Your task to perform on an android device: set the timer Image 0: 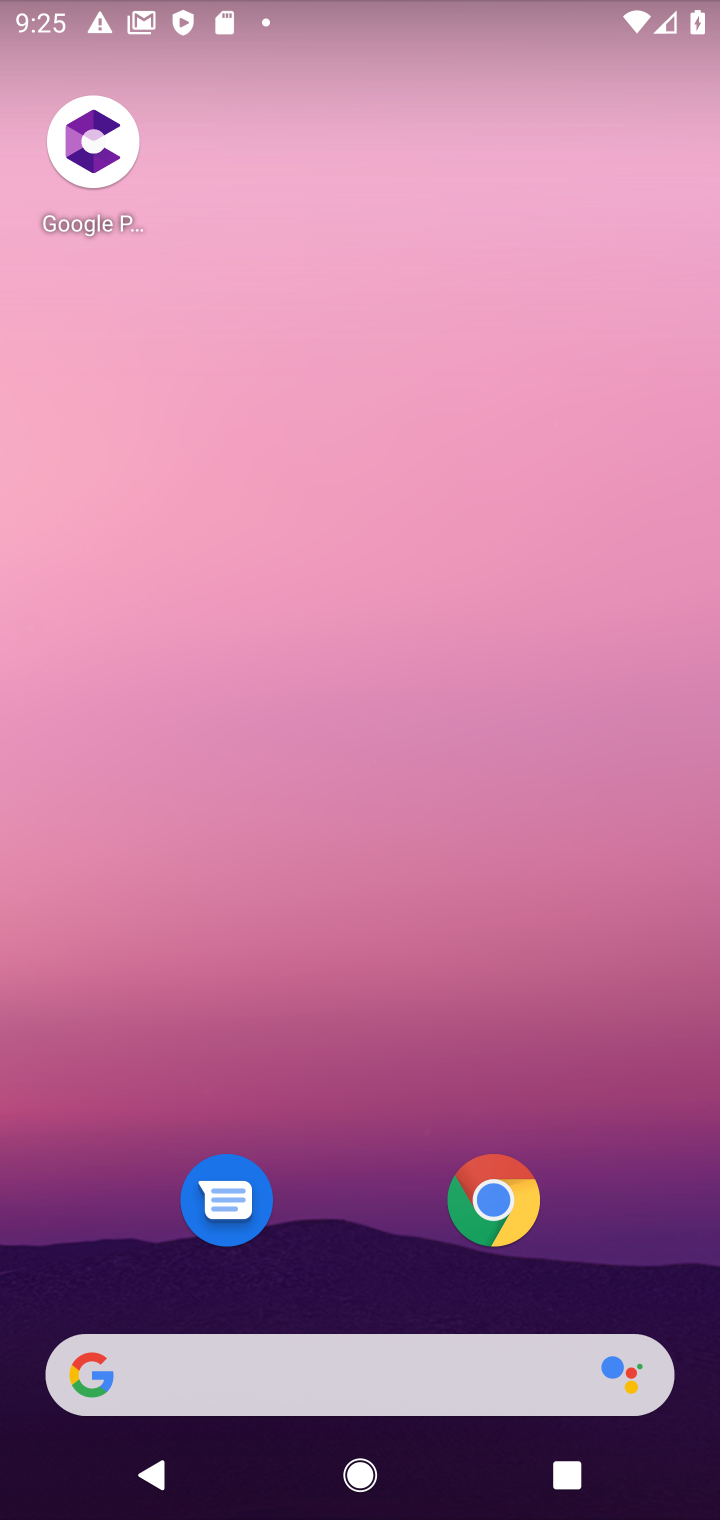
Step 0: drag from (345, 981) to (438, 133)
Your task to perform on an android device: set the timer Image 1: 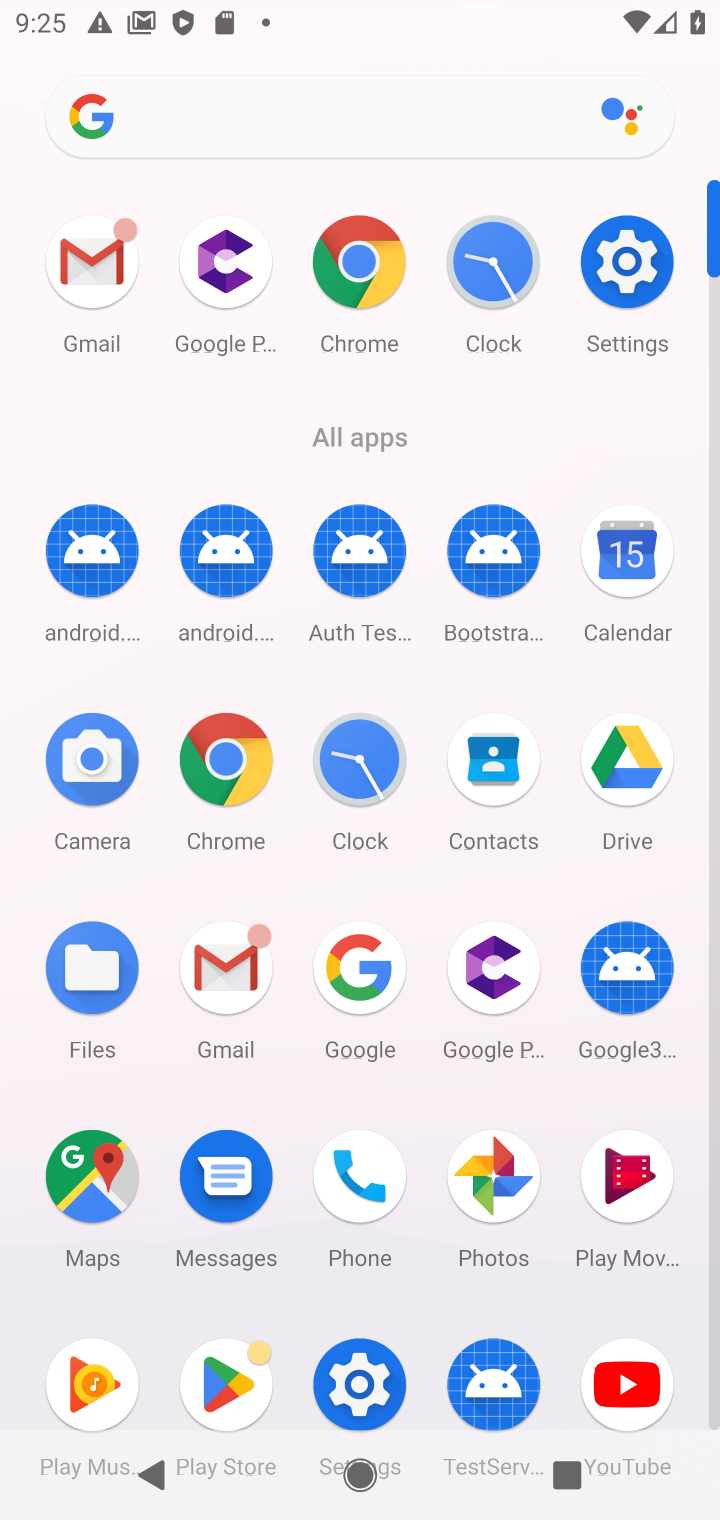
Step 1: click (504, 288)
Your task to perform on an android device: set the timer Image 2: 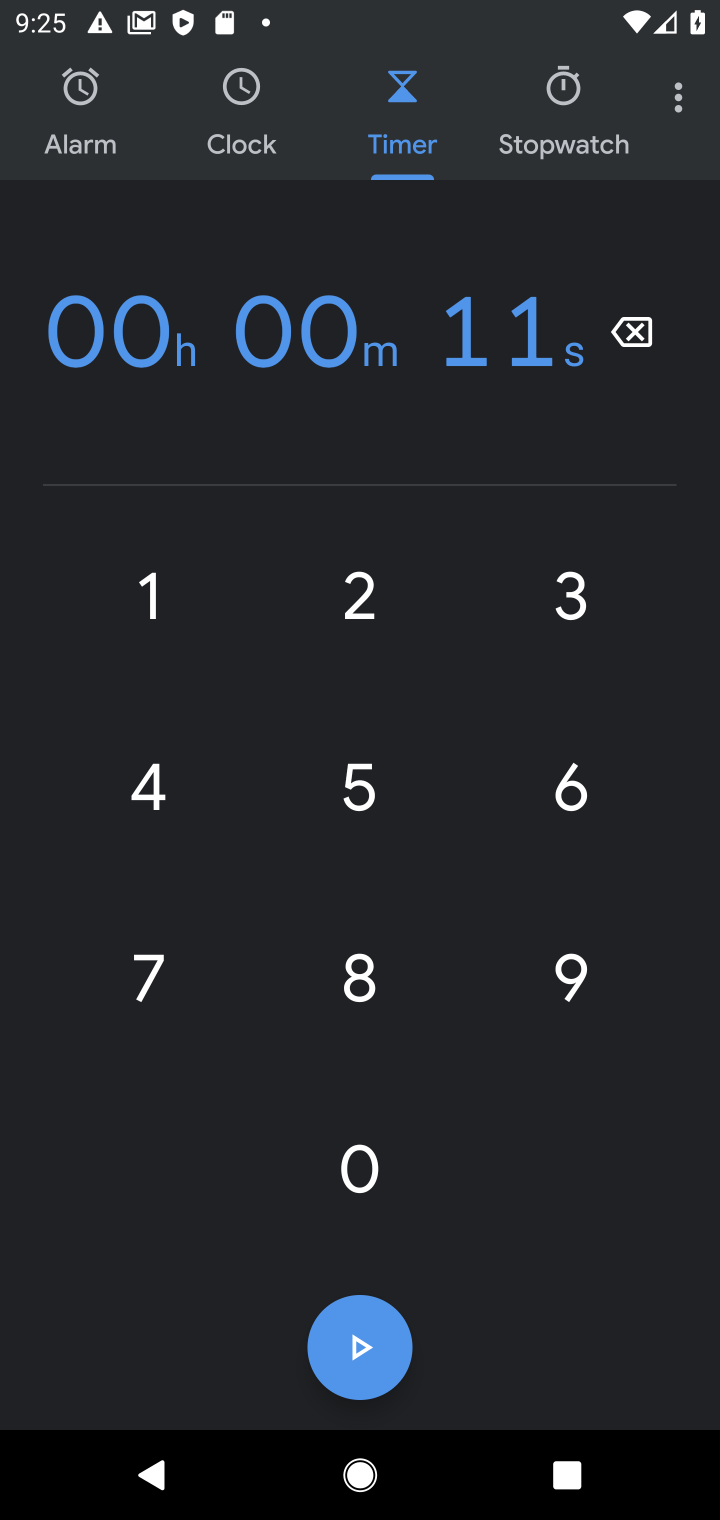
Step 2: click (343, 1367)
Your task to perform on an android device: set the timer Image 3: 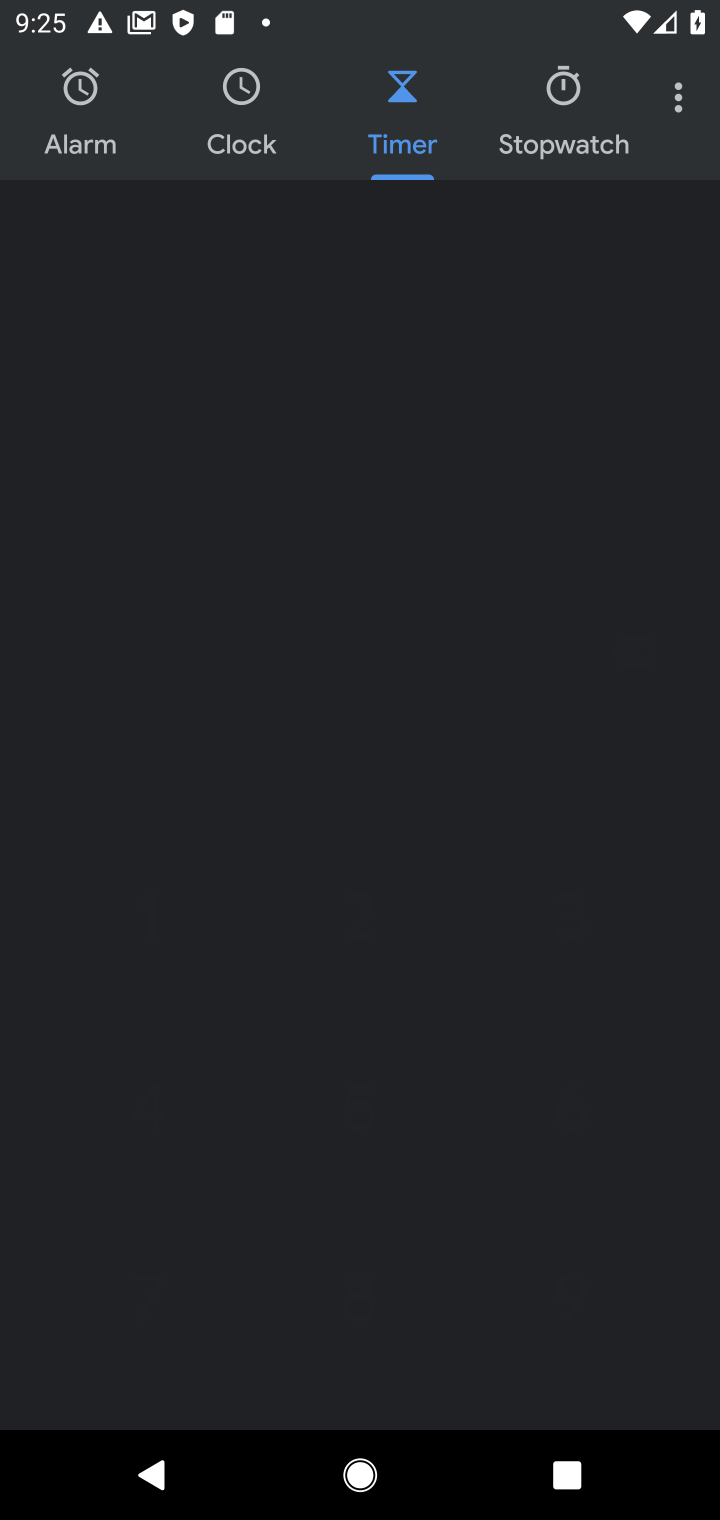
Step 3: task complete